Your task to perform on an android device: change the clock display to digital Image 0: 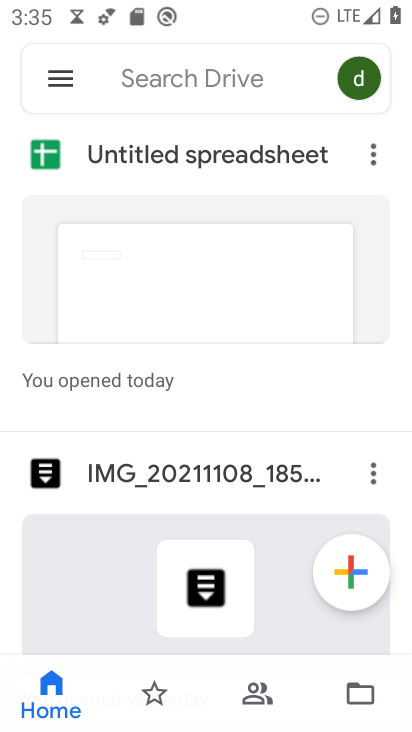
Step 0: press home button
Your task to perform on an android device: change the clock display to digital Image 1: 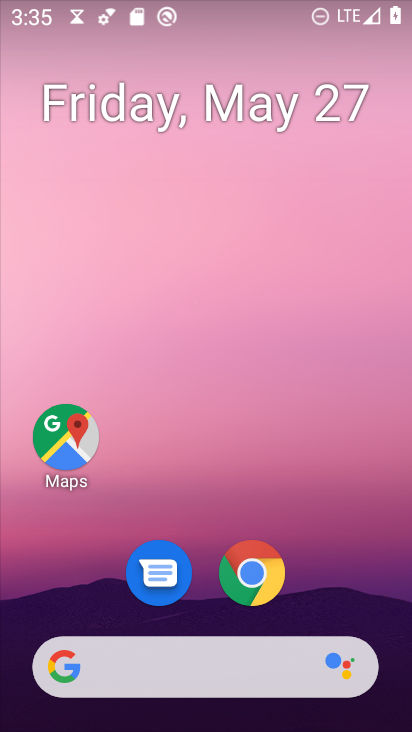
Step 1: drag from (341, 587) to (341, 2)
Your task to perform on an android device: change the clock display to digital Image 2: 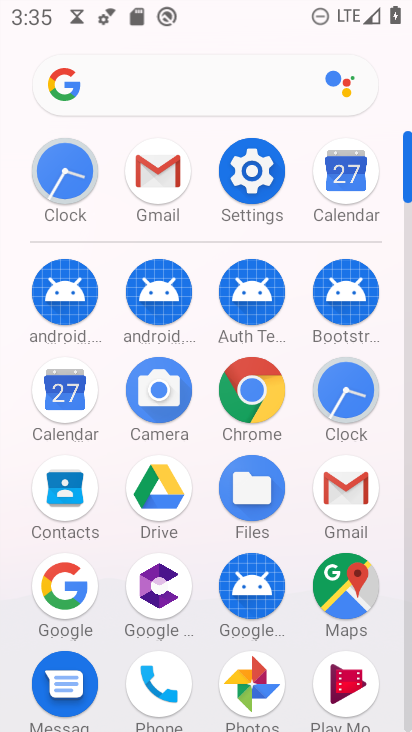
Step 2: click (343, 401)
Your task to perform on an android device: change the clock display to digital Image 3: 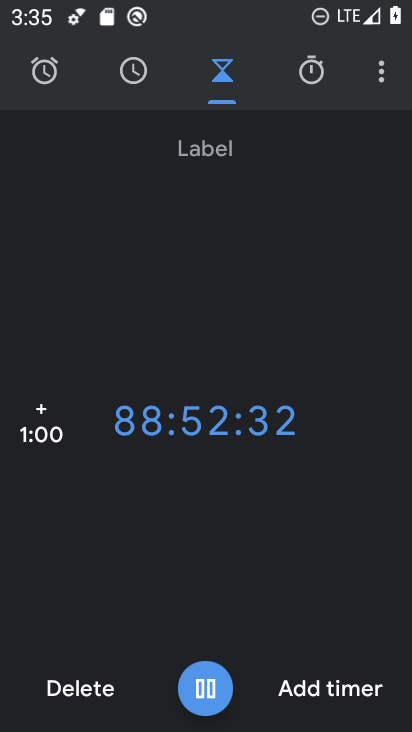
Step 3: click (376, 72)
Your task to perform on an android device: change the clock display to digital Image 4: 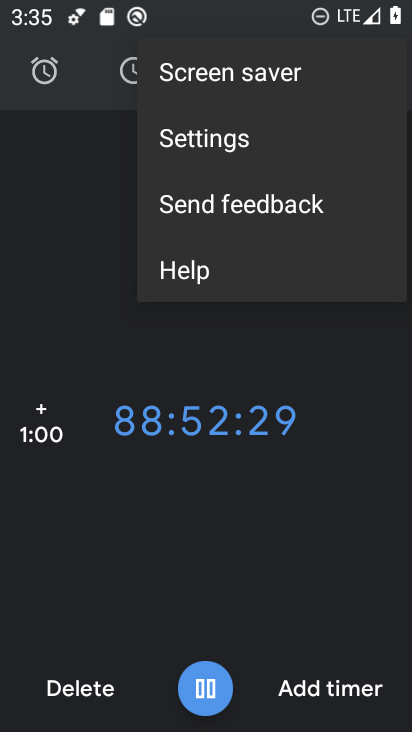
Step 4: click (250, 135)
Your task to perform on an android device: change the clock display to digital Image 5: 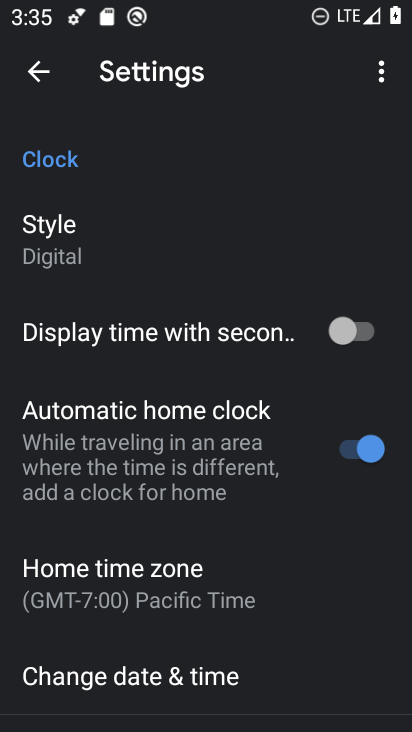
Step 5: click (62, 230)
Your task to perform on an android device: change the clock display to digital Image 6: 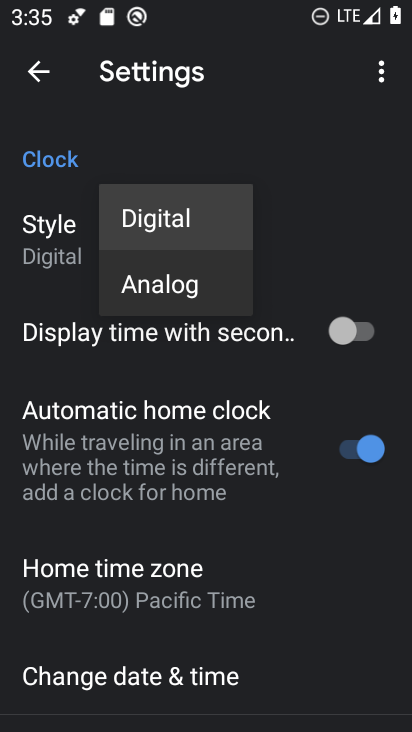
Step 6: click (126, 219)
Your task to perform on an android device: change the clock display to digital Image 7: 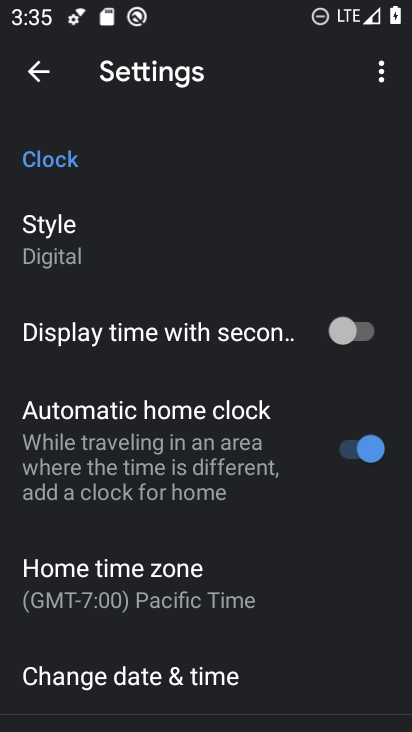
Step 7: task complete